Your task to perform on an android device: show emergency info Image 0: 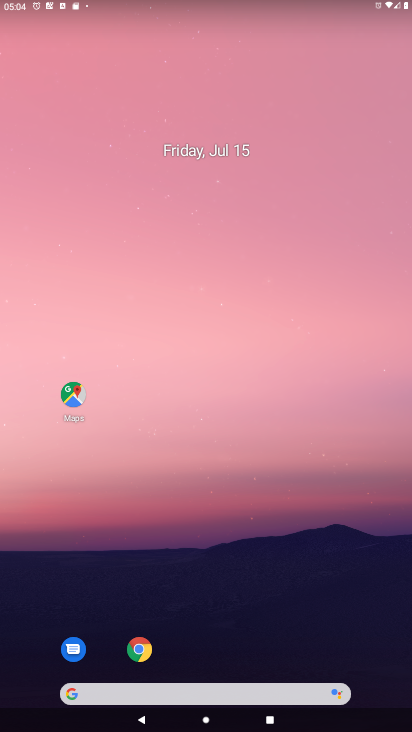
Step 0: drag from (383, 664) to (341, 136)
Your task to perform on an android device: show emergency info Image 1: 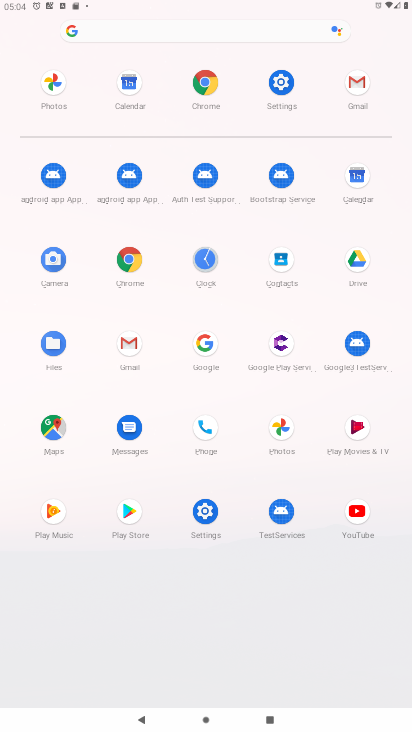
Step 1: click (204, 511)
Your task to perform on an android device: show emergency info Image 2: 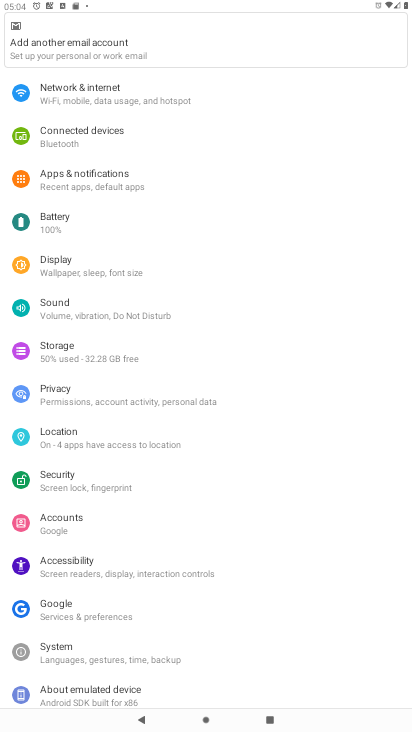
Step 2: drag from (246, 648) to (225, 135)
Your task to perform on an android device: show emergency info Image 3: 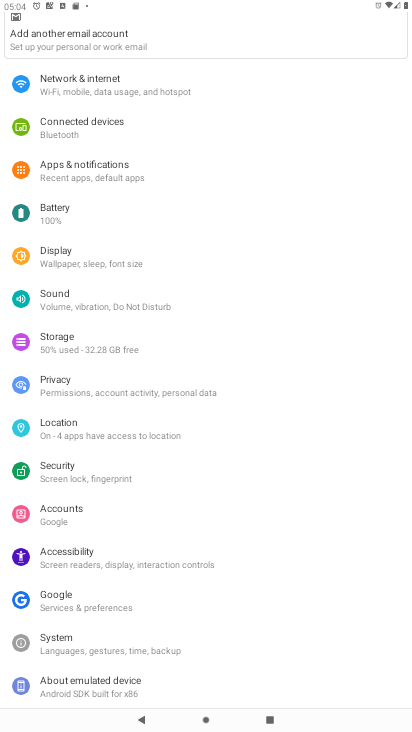
Step 3: click (81, 675)
Your task to perform on an android device: show emergency info Image 4: 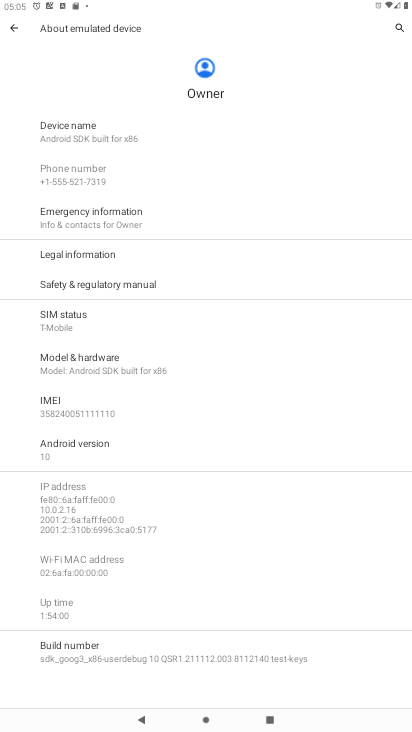
Step 4: click (76, 214)
Your task to perform on an android device: show emergency info Image 5: 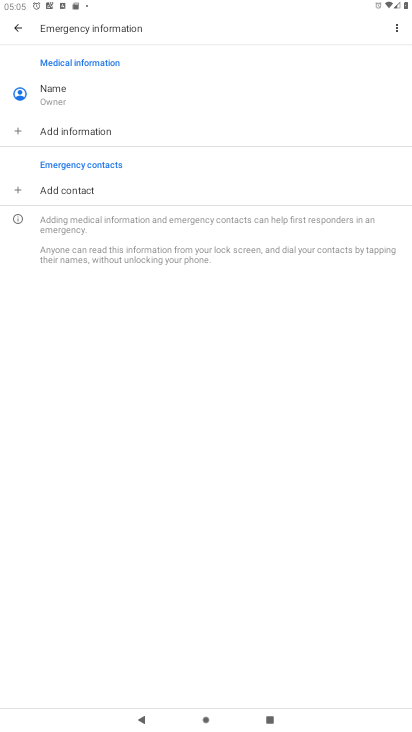
Step 5: task complete